Your task to perform on an android device: move an email to a new category in the gmail app Image 0: 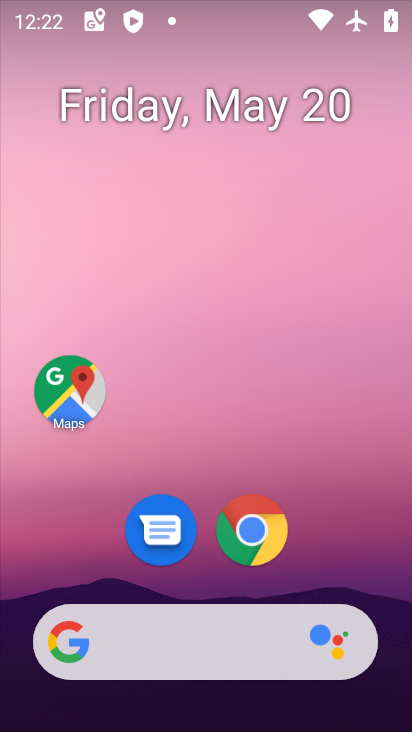
Step 0: drag from (289, 276) to (326, 60)
Your task to perform on an android device: move an email to a new category in the gmail app Image 1: 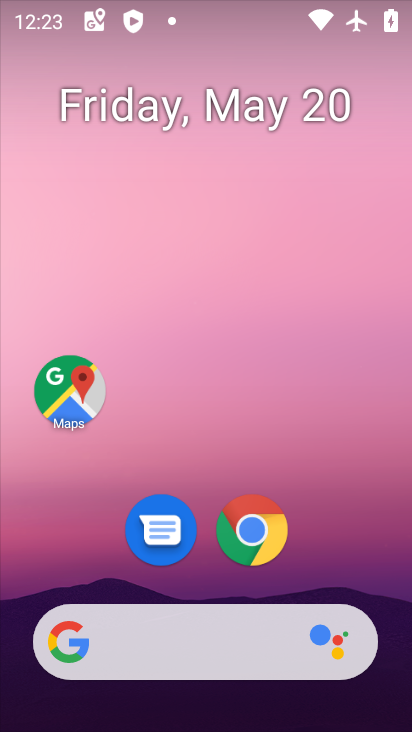
Step 1: drag from (274, 643) to (326, 37)
Your task to perform on an android device: move an email to a new category in the gmail app Image 2: 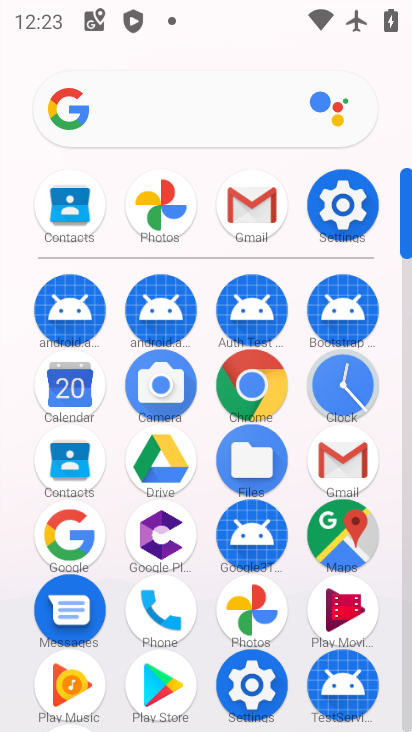
Step 2: click (248, 215)
Your task to perform on an android device: move an email to a new category in the gmail app Image 3: 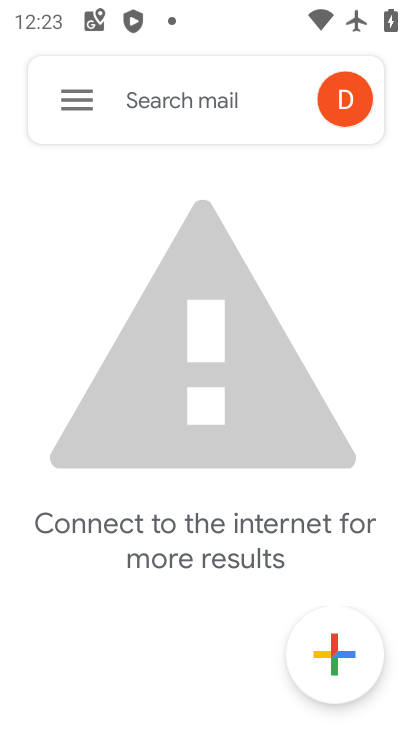
Step 3: click (69, 115)
Your task to perform on an android device: move an email to a new category in the gmail app Image 4: 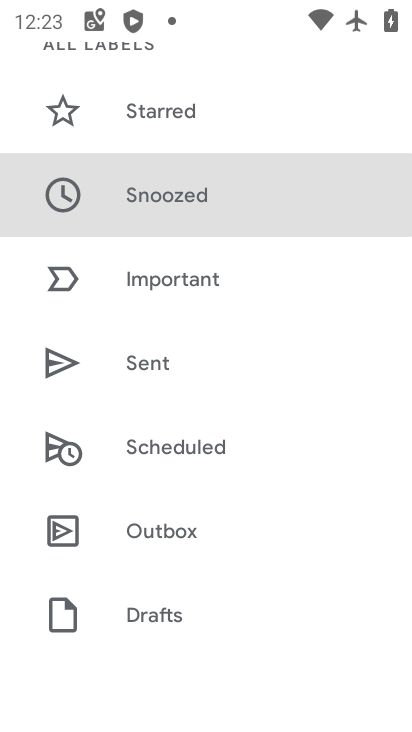
Step 4: drag from (289, 468) to (361, 76)
Your task to perform on an android device: move an email to a new category in the gmail app Image 5: 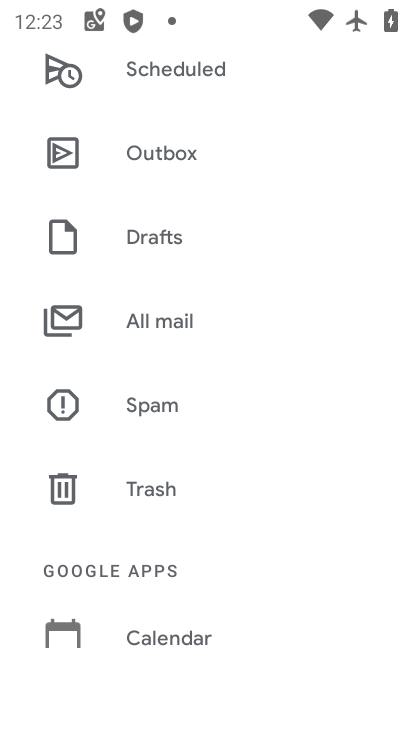
Step 5: click (208, 320)
Your task to perform on an android device: move an email to a new category in the gmail app Image 6: 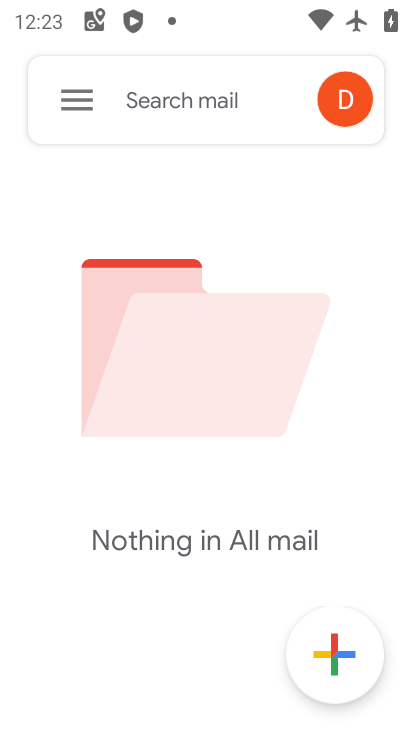
Step 6: task complete